Your task to perform on an android device: Open notification settings Image 0: 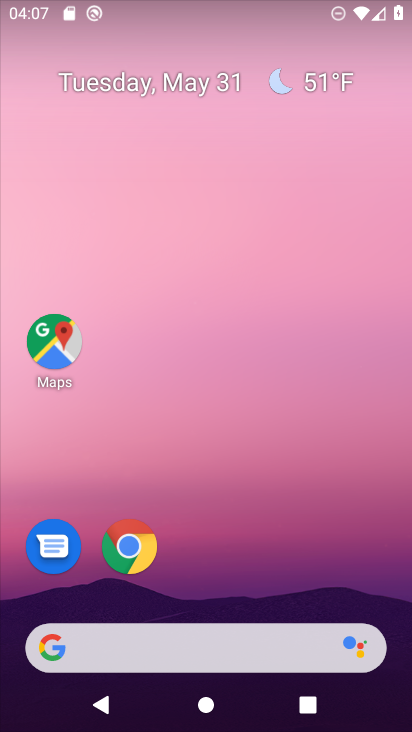
Step 0: drag from (189, 586) to (201, 144)
Your task to perform on an android device: Open notification settings Image 1: 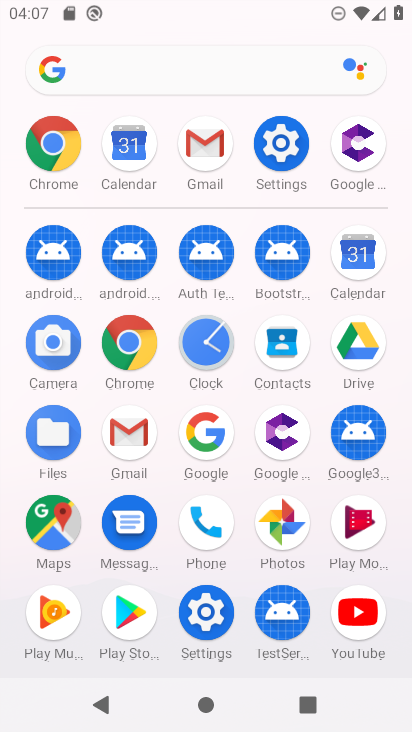
Step 1: click (290, 143)
Your task to perform on an android device: Open notification settings Image 2: 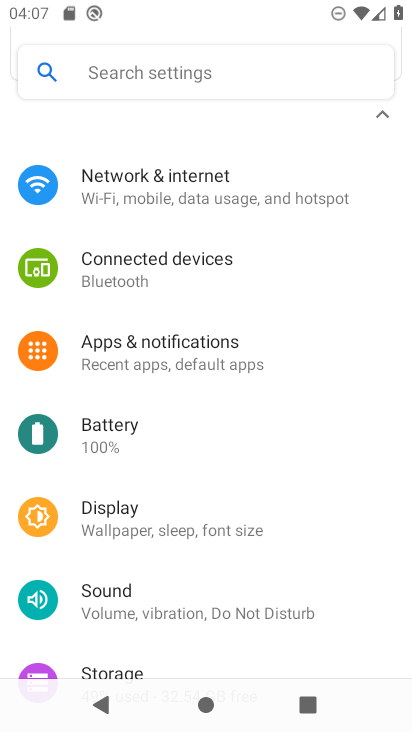
Step 2: click (146, 364)
Your task to perform on an android device: Open notification settings Image 3: 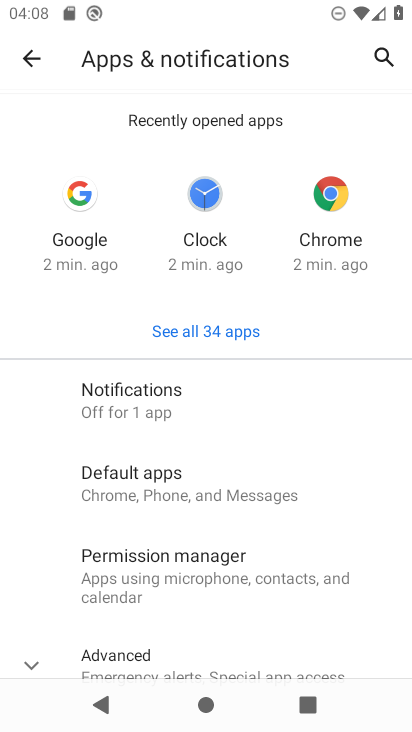
Step 3: click (154, 406)
Your task to perform on an android device: Open notification settings Image 4: 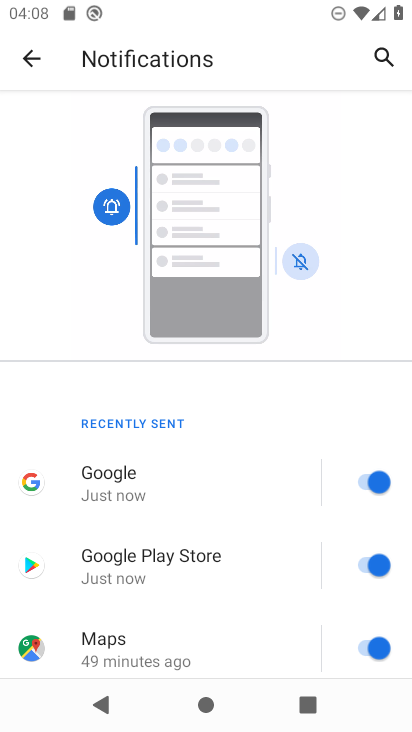
Step 4: task complete